Your task to perform on an android device: Search for usb-b on walmart, select the first entry, add it to the cart, then select checkout. Image 0: 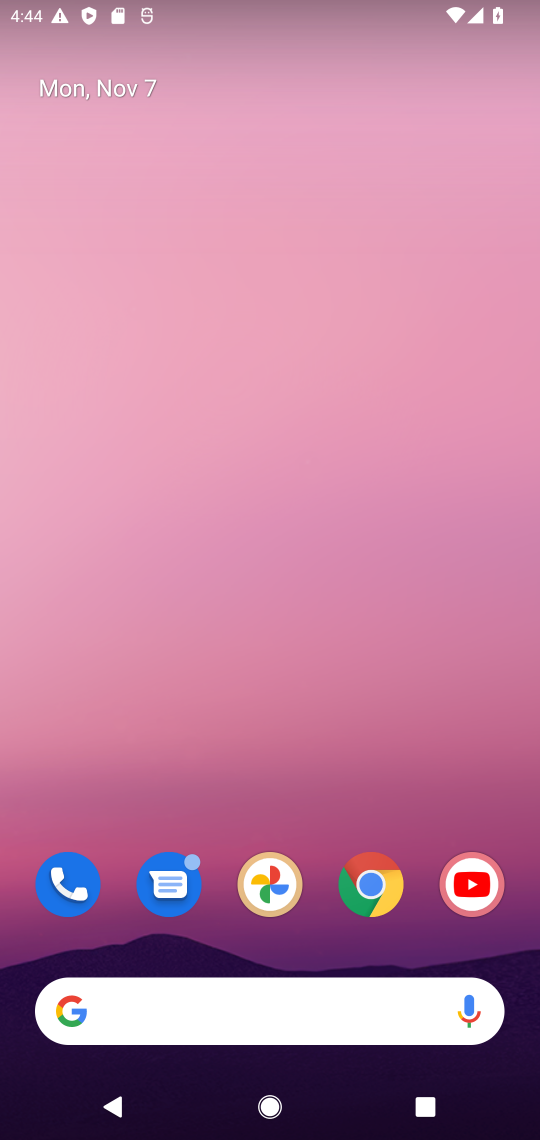
Step 0: drag from (312, 905) to (335, 29)
Your task to perform on an android device: Search for usb-b on walmart, select the first entry, add it to the cart, then select checkout. Image 1: 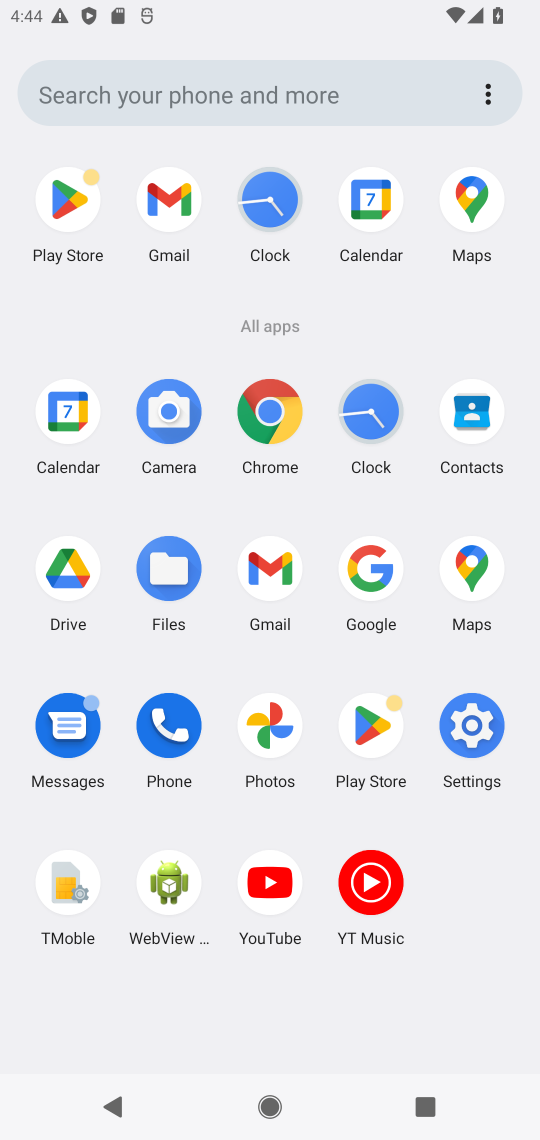
Step 1: click (269, 427)
Your task to perform on an android device: Search for usb-b on walmart, select the first entry, add it to the cart, then select checkout. Image 2: 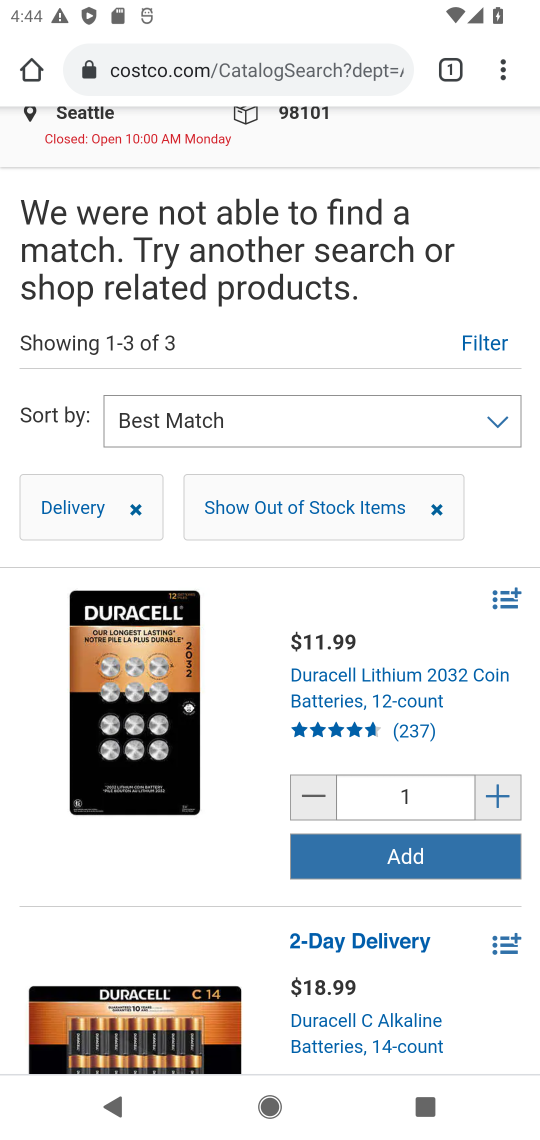
Step 2: click (340, 67)
Your task to perform on an android device: Search for usb-b on walmart, select the first entry, add it to the cart, then select checkout. Image 3: 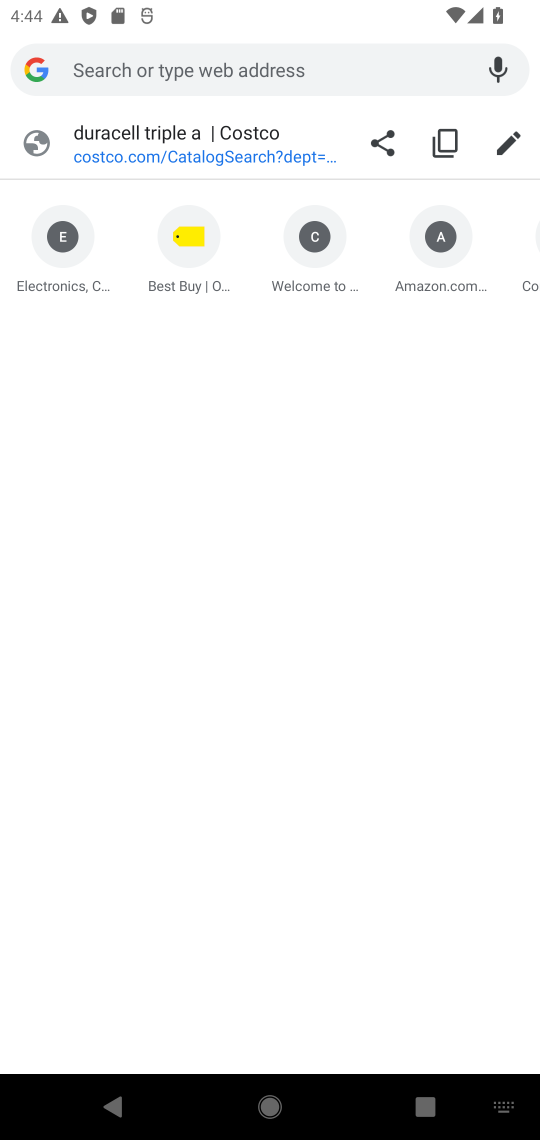
Step 3: type "walmart.com"
Your task to perform on an android device: Search for usb-b on walmart, select the first entry, add it to the cart, then select checkout. Image 4: 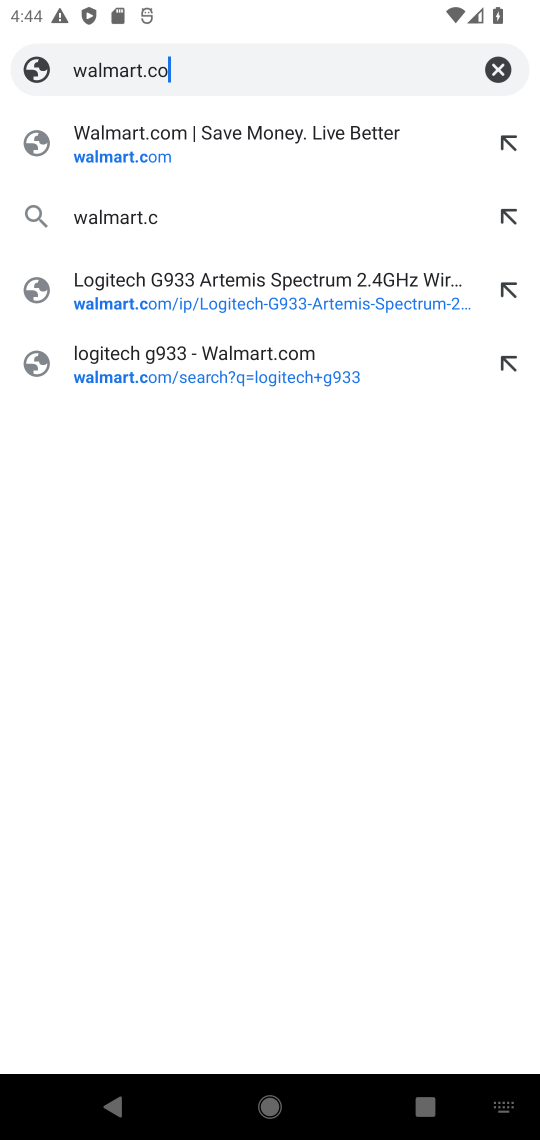
Step 4: press enter
Your task to perform on an android device: Search for usb-b on walmart, select the first entry, add it to the cart, then select checkout. Image 5: 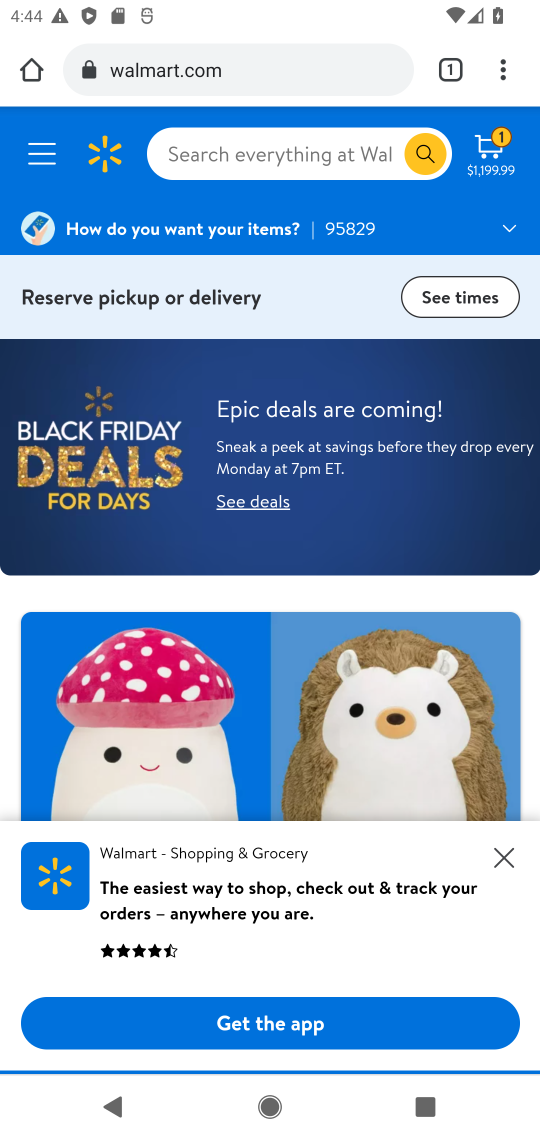
Step 5: click (317, 148)
Your task to perform on an android device: Search for usb-b on walmart, select the first entry, add it to the cart, then select checkout. Image 6: 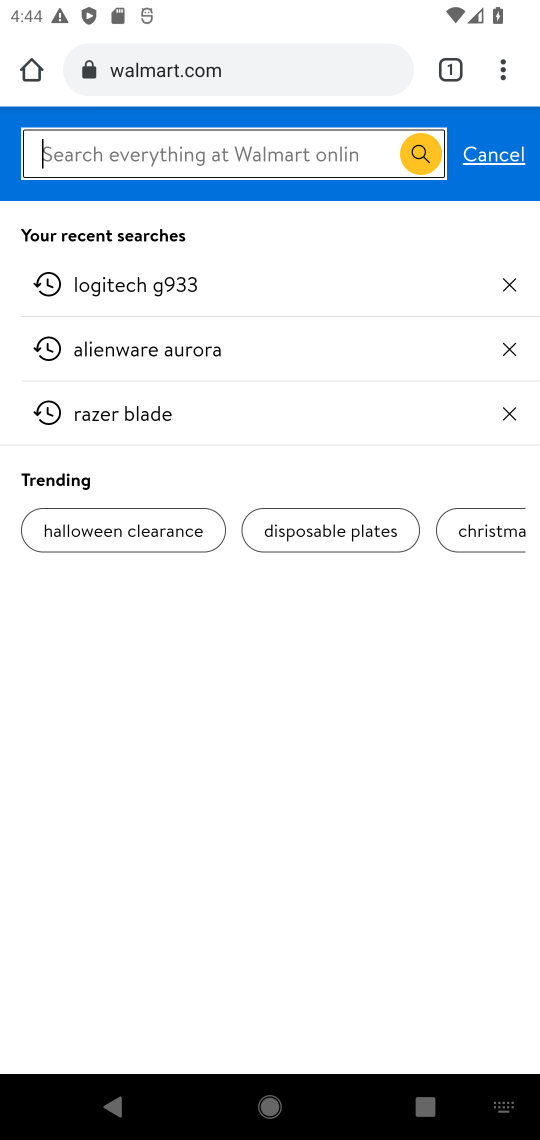
Step 6: type "usb-b"
Your task to perform on an android device: Search for usb-b on walmart, select the first entry, add it to the cart, then select checkout. Image 7: 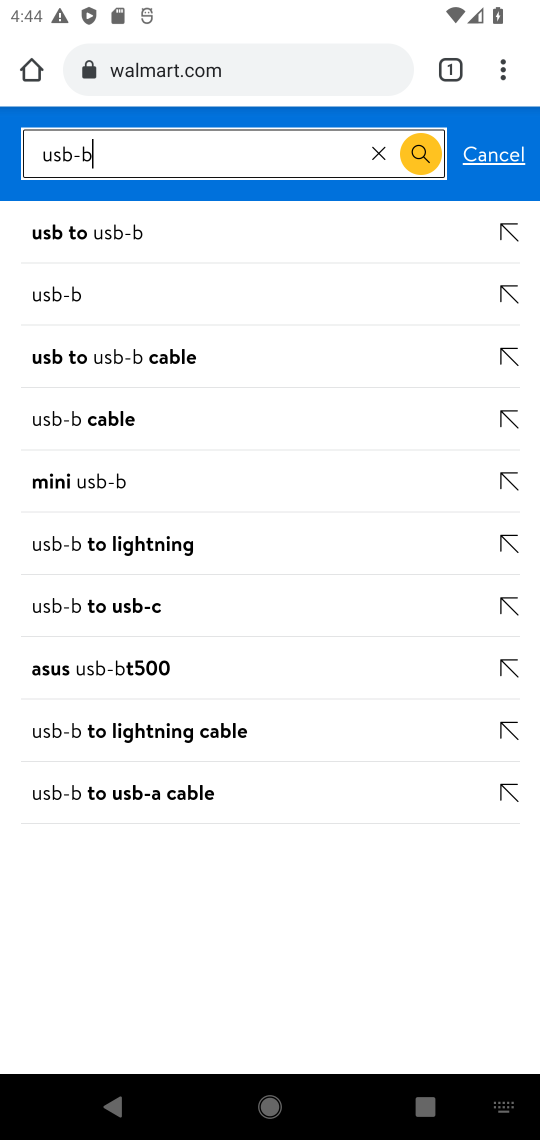
Step 7: press enter
Your task to perform on an android device: Search for usb-b on walmart, select the first entry, add it to the cart, then select checkout. Image 8: 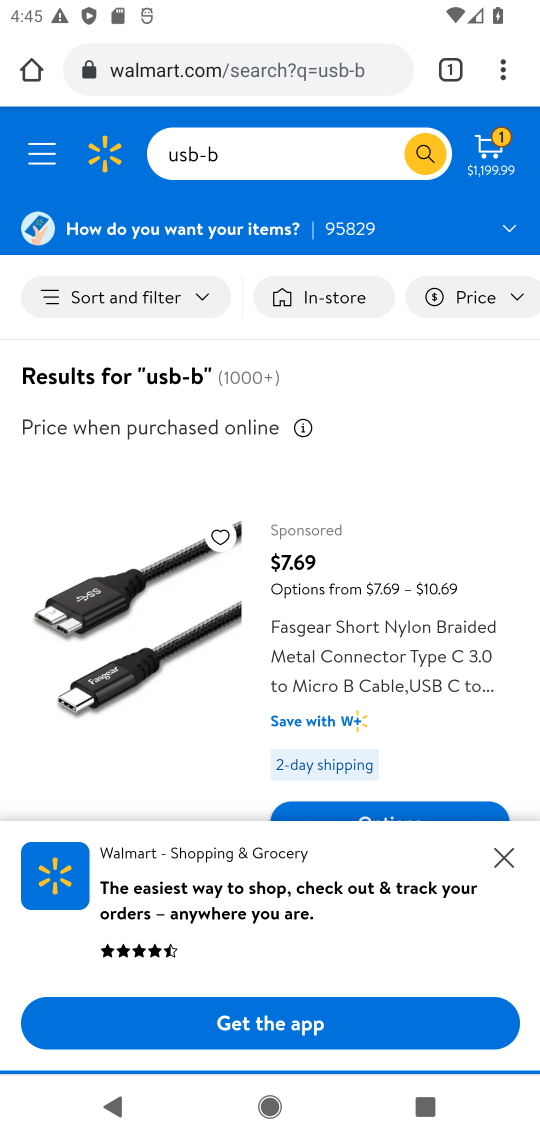
Step 8: task complete